Your task to perform on an android device: stop showing notifications on the lock screen Image 0: 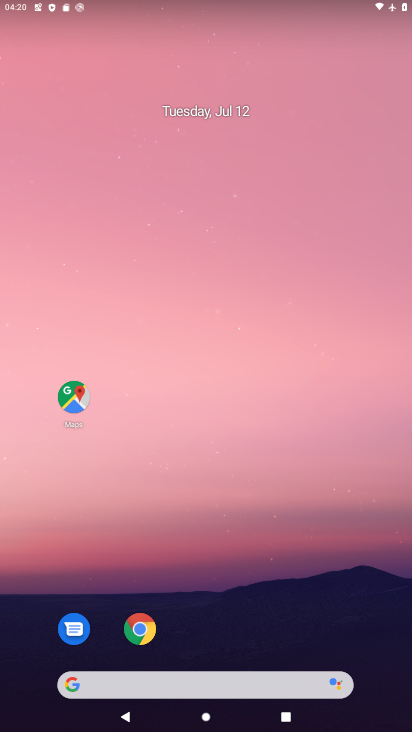
Step 0: drag from (330, 620) to (233, 118)
Your task to perform on an android device: stop showing notifications on the lock screen Image 1: 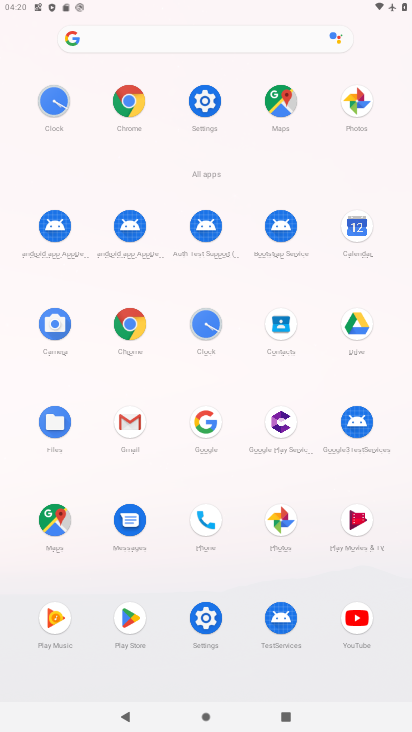
Step 1: click (201, 95)
Your task to perform on an android device: stop showing notifications on the lock screen Image 2: 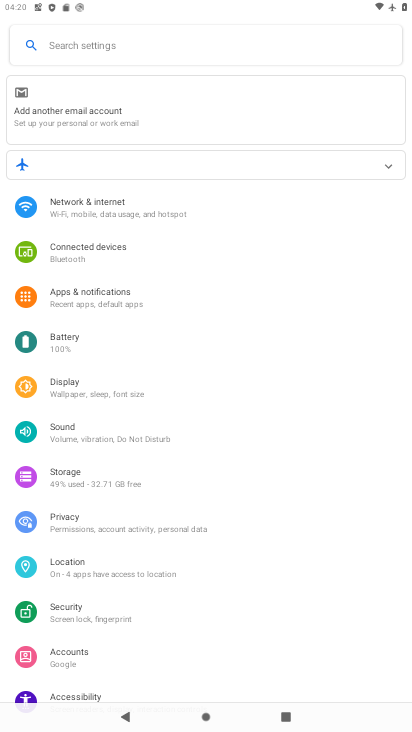
Step 2: click (94, 298)
Your task to perform on an android device: stop showing notifications on the lock screen Image 3: 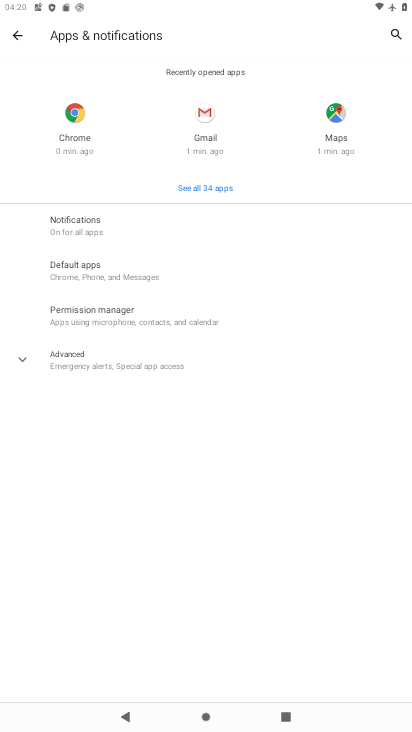
Step 3: click (89, 235)
Your task to perform on an android device: stop showing notifications on the lock screen Image 4: 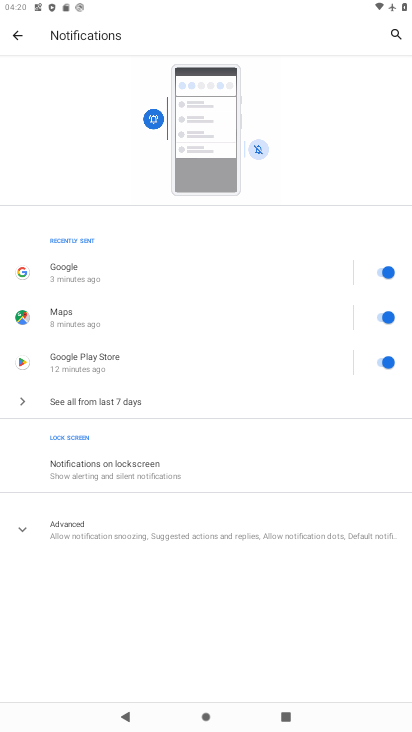
Step 4: click (136, 467)
Your task to perform on an android device: stop showing notifications on the lock screen Image 5: 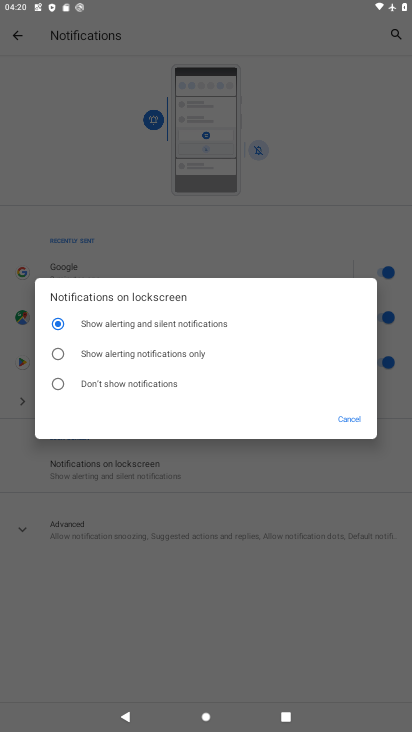
Step 5: click (143, 387)
Your task to perform on an android device: stop showing notifications on the lock screen Image 6: 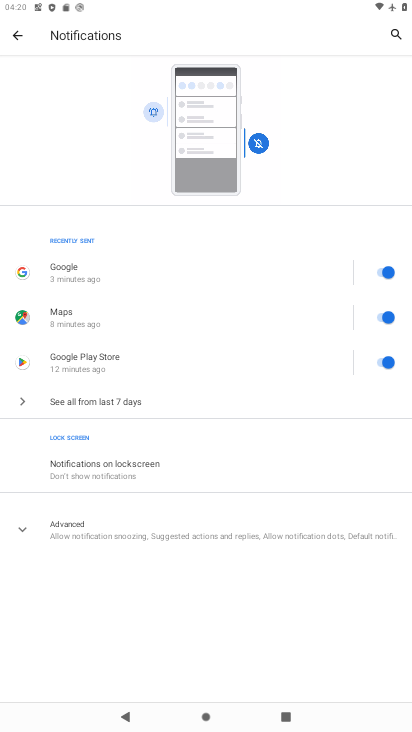
Step 6: task complete